Your task to perform on an android device: Go to Maps Image 0: 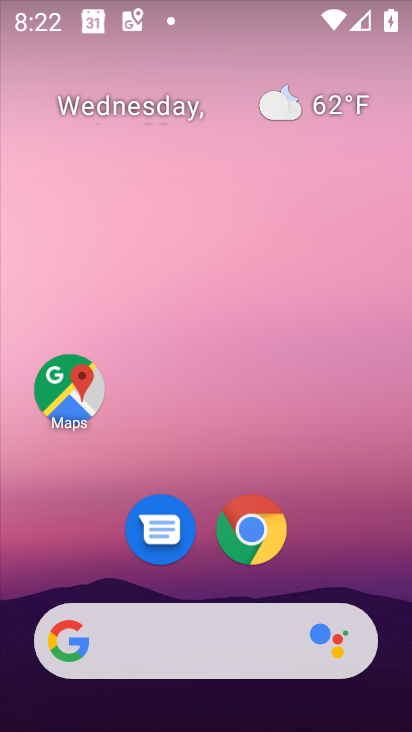
Step 0: click (94, 389)
Your task to perform on an android device: Go to Maps Image 1: 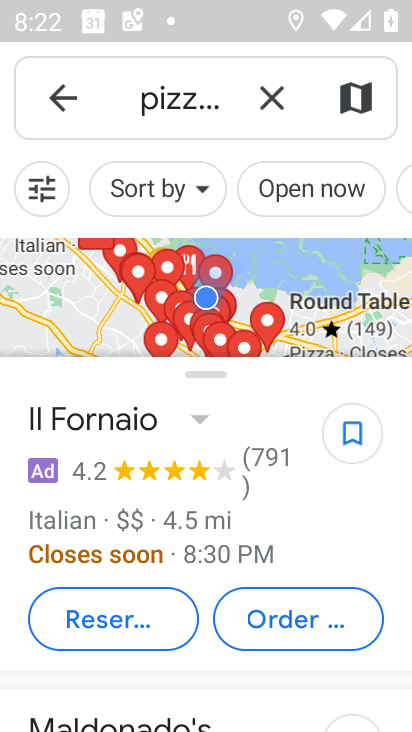
Step 1: task complete